Your task to perform on an android device: Search for sushi restaurants on Maps Image 0: 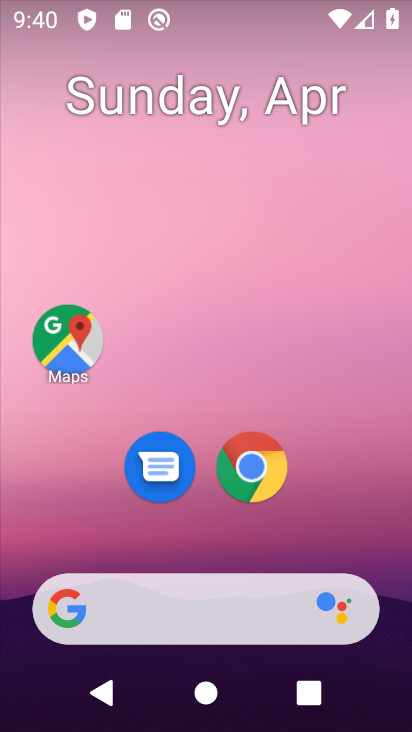
Step 0: click (53, 334)
Your task to perform on an android device: Search for sushi restaurants on Maps Image 1: 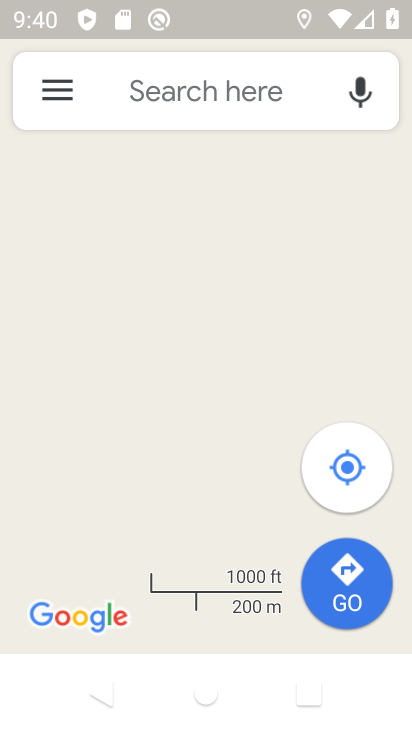
Step 1: click (157, 94)
Your task to perform on an android device: Search for sushi restaurants on Maps Image 2: 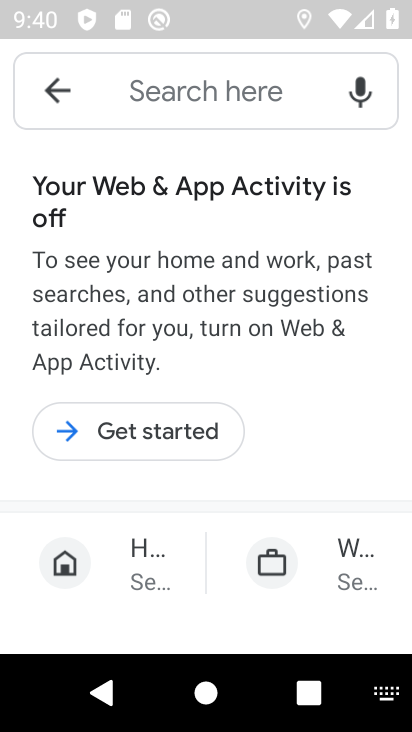
Step 2: click (161, 91)
Your task to perform on an android device: Search for sushi restaurants on Maps Image 3: 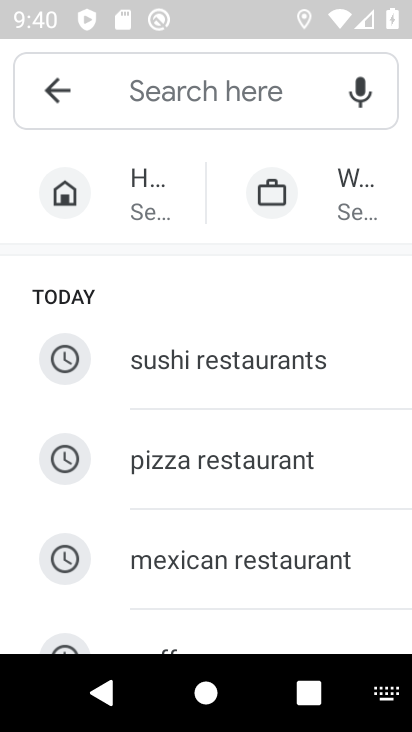
Step 3: type "sh"
Your task to perform on an android device: Search for sushi restaurants on Maps Image 4: 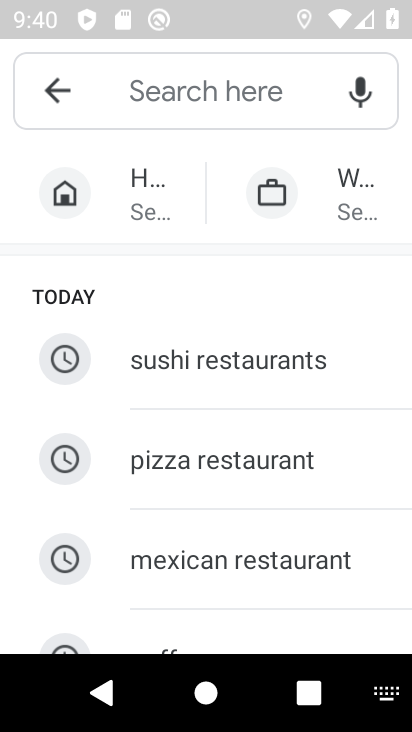
Step 4: click (258, 371)
Your task to perform on an android device: Search for sushi restaurants on Maps Image 5: 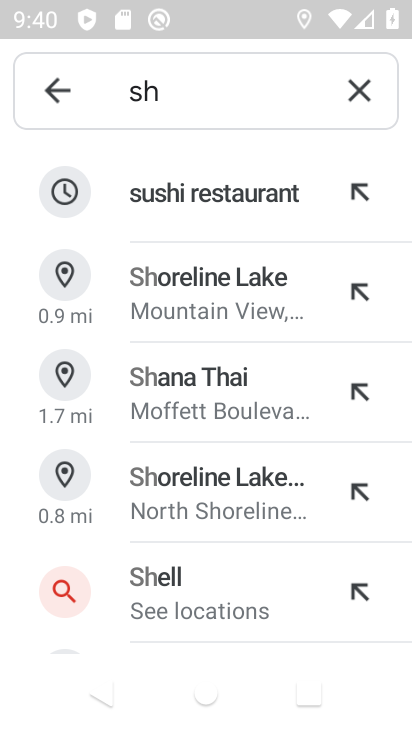
Step 5: click (207, 194)
Your task to perform on an android device: Search for sushi restaurants on Maps Image 6: 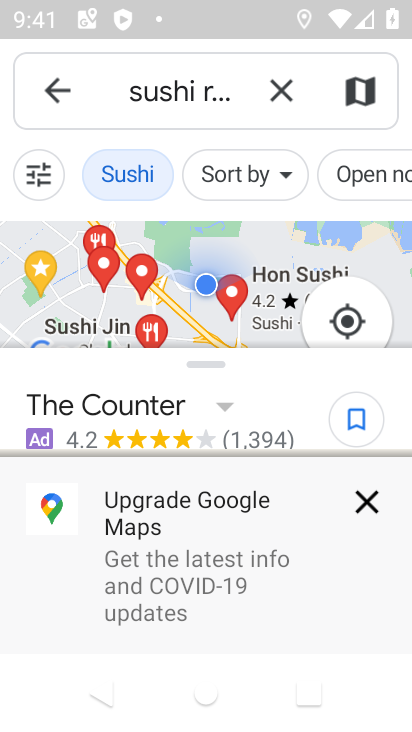
Step 6: task complete